Your task to perform on an android device: turn pop-ups off in chrome Image 0: 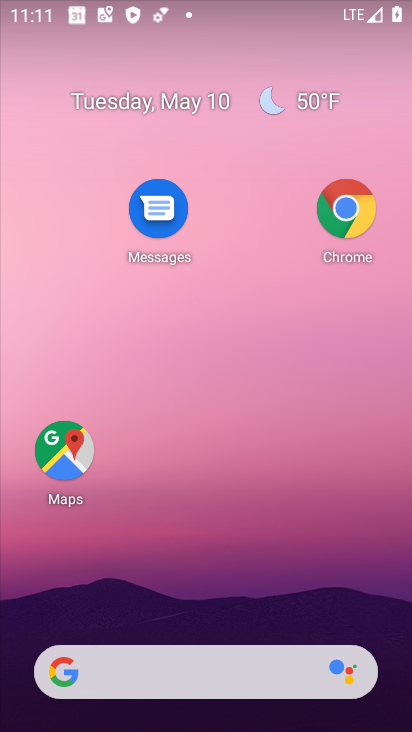
Step 0: drag from (221, 638) to (222, 61)
Your task to perform on an android device: turn pop-ups off in chrome Image 1: 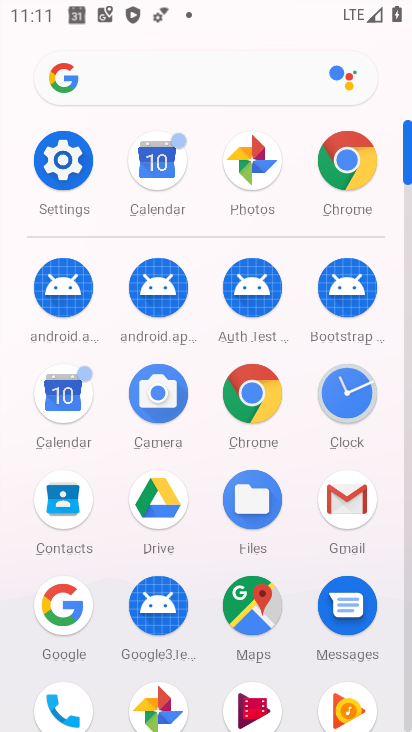
Step 1: click (259, 406)
Your task to perform on an android device: turn pop-ups off in chrome Image 2: 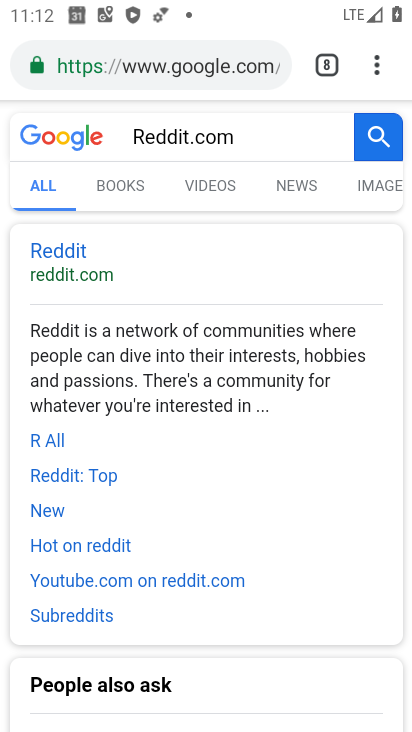
Step 2: click (369, 68)
Your task to perform on an android device: turn pop-ups off in chrome Image 3: 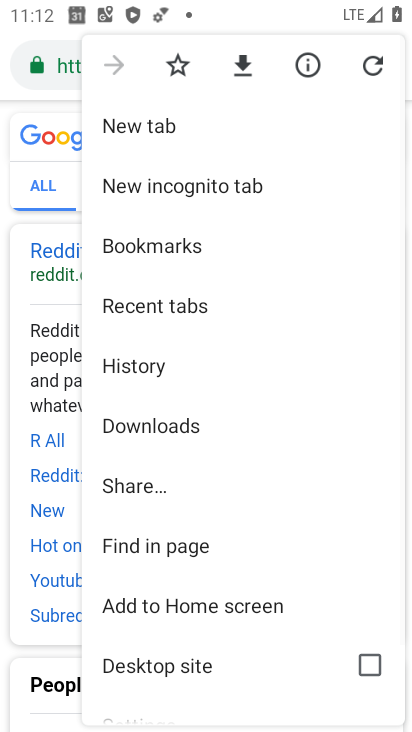
Step 3: drag from (260, 551) to (237, 90)
Your task to perform on an android device: turn pop-ups off in chrome Image 4: 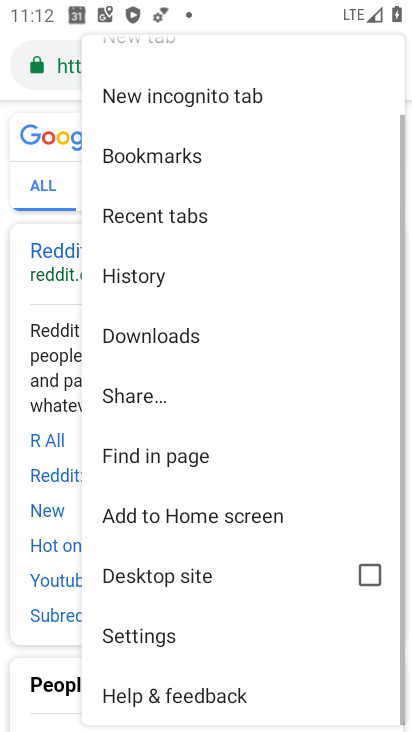
Step 4: click (159, 623)
Your task to perform on an android device: turn pop-ups off in chrome Image 5: 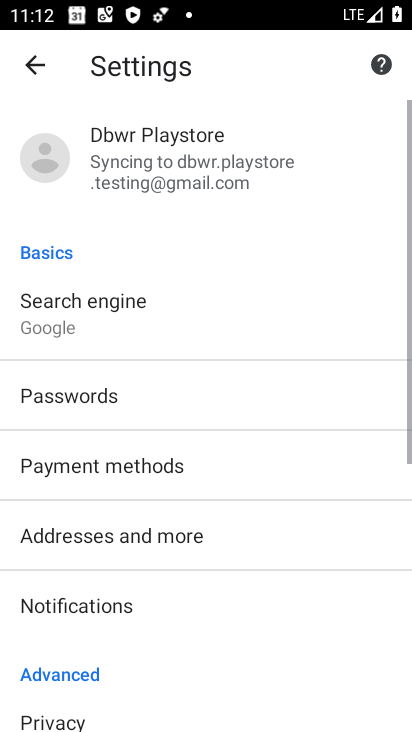
Step 5: drag from (251, 690) to (271, 167)
Your task to perform on an android device: turn pop-ups off in chrome Image 6: 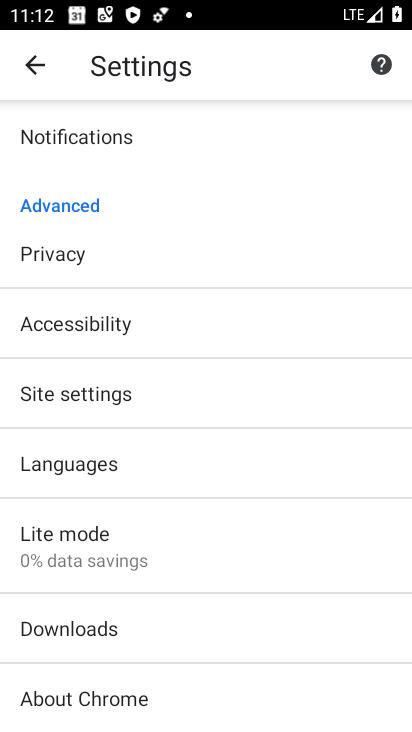
Step 6: click (118, 384)
Your task to perform on an android device: turn pop-ups off in chrome Image 7: 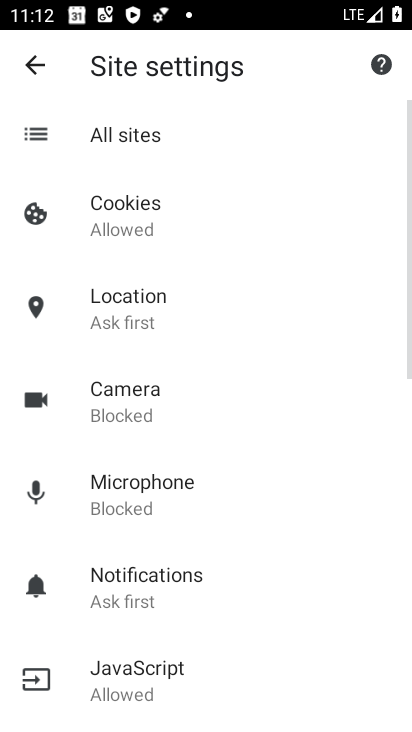
Step 7: drag from (153, 592) to (178, 234)
Your task to perform on an android device: turn pop-ups off in chrome Image 8: 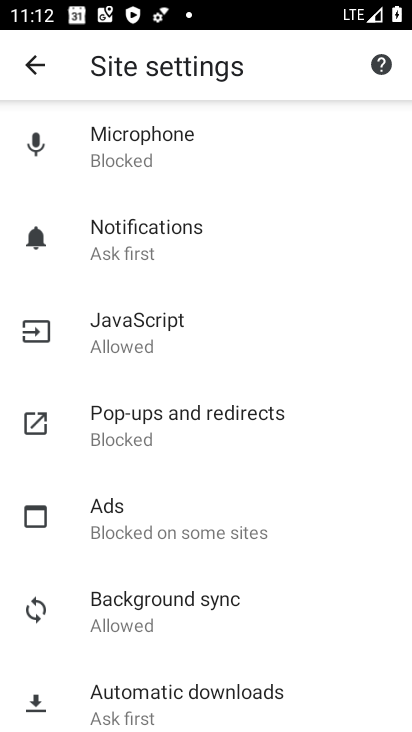
Step 8: click (166, 448)
Your task to perform on an android device: turn pop-ups off in chrome Image 9: 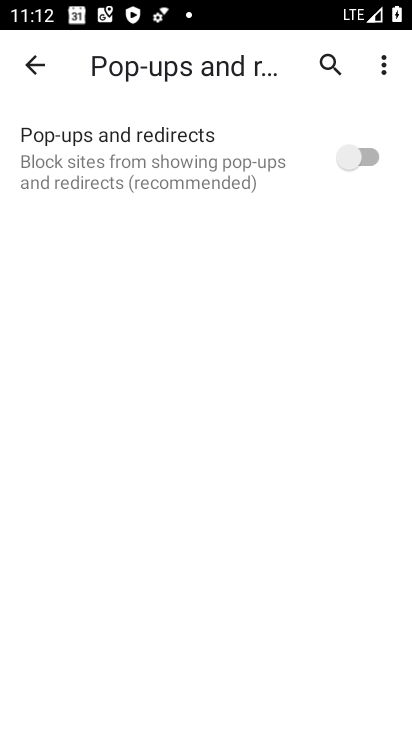
Step 9: task complete